Your task to perform on an android device: refresh tabs in the chrome app Image 0: 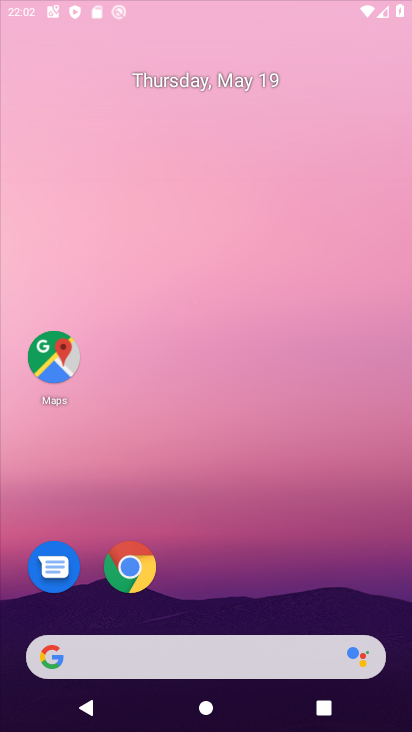
Step 0: press home button
Your task to perform on an android device: refresh tabs in the chrome app Image 1: 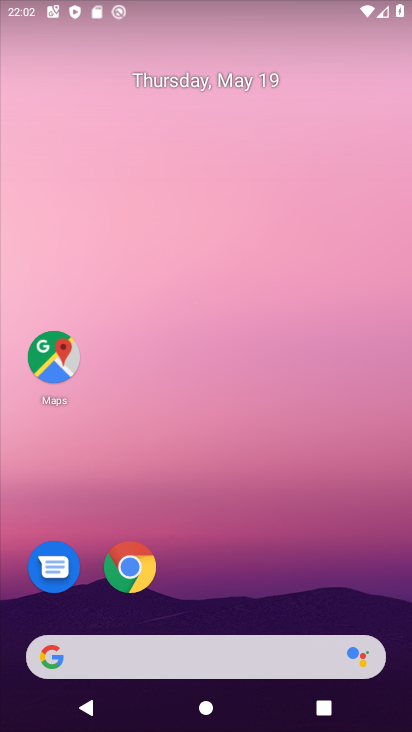
Step 1: click (131, 560)
Your task to perform on an android device: refresh tabs in the chrome app Image 2: 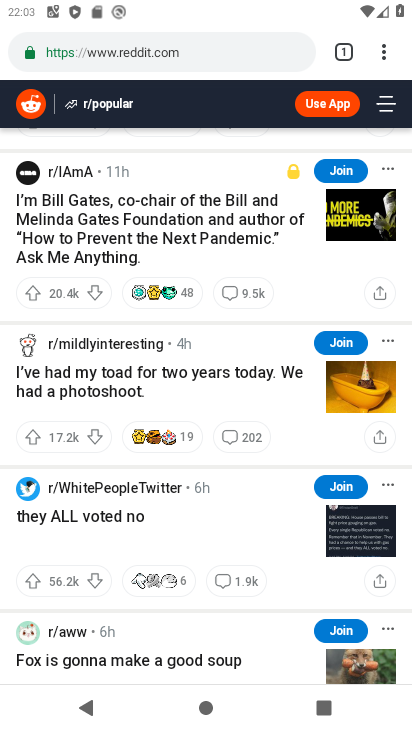
Step 2: click (385, 53)
Your task to perform on an android device: refresh tabs in the chrome app Image 3: 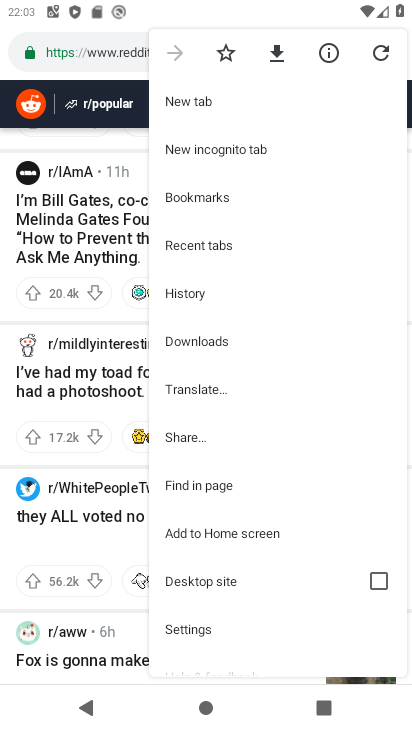
Step 3: click (379, 54)
Your task to perform on an android device: refresh tabs in the chrome app Image 4: 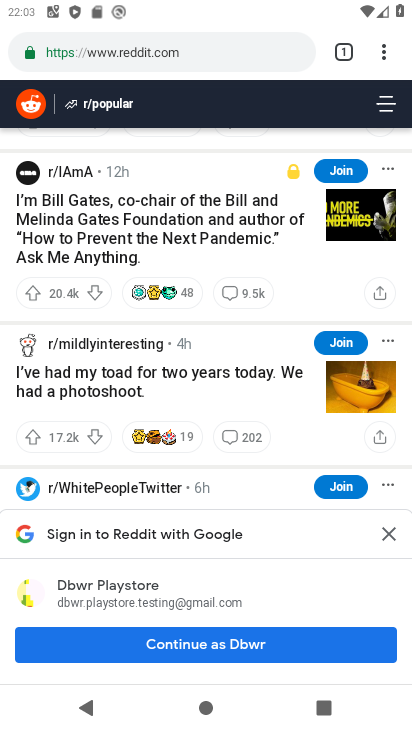
Step 4: task complete